Your task to perform on an android device: When is my next meeting? Image 0: 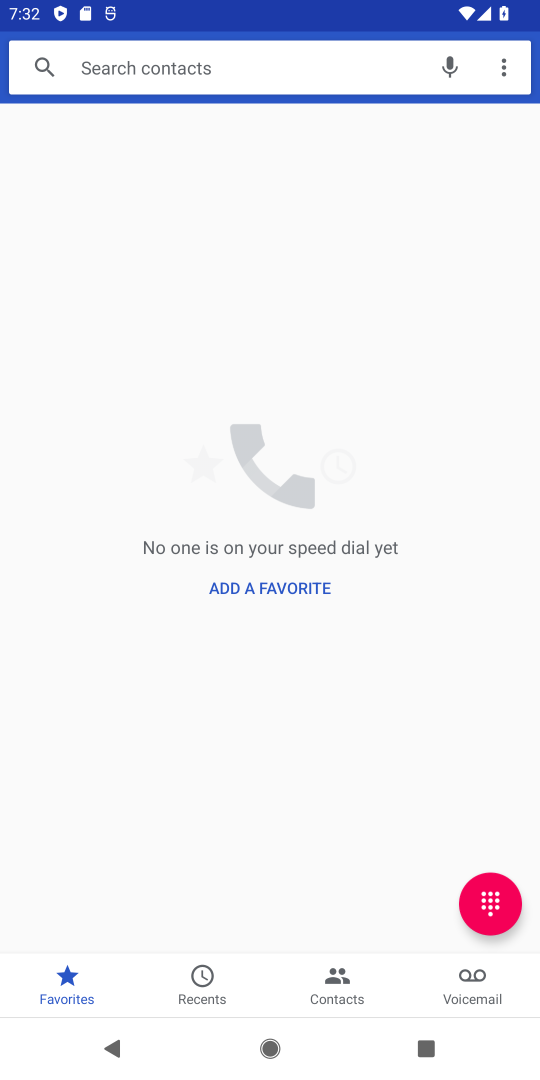
Step 0: press home button
Your task to perform on an android device: When is my next meeting? Image 1: 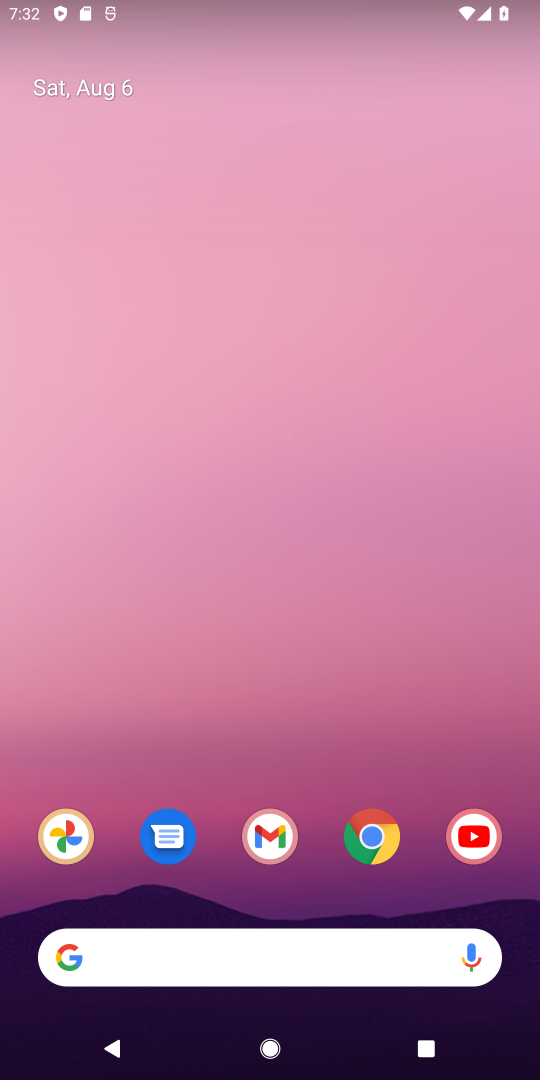
Step 1: drag from (256, 918) to (256, 367)
Your task to perform on an android device: When is my next meeting? Image 2: 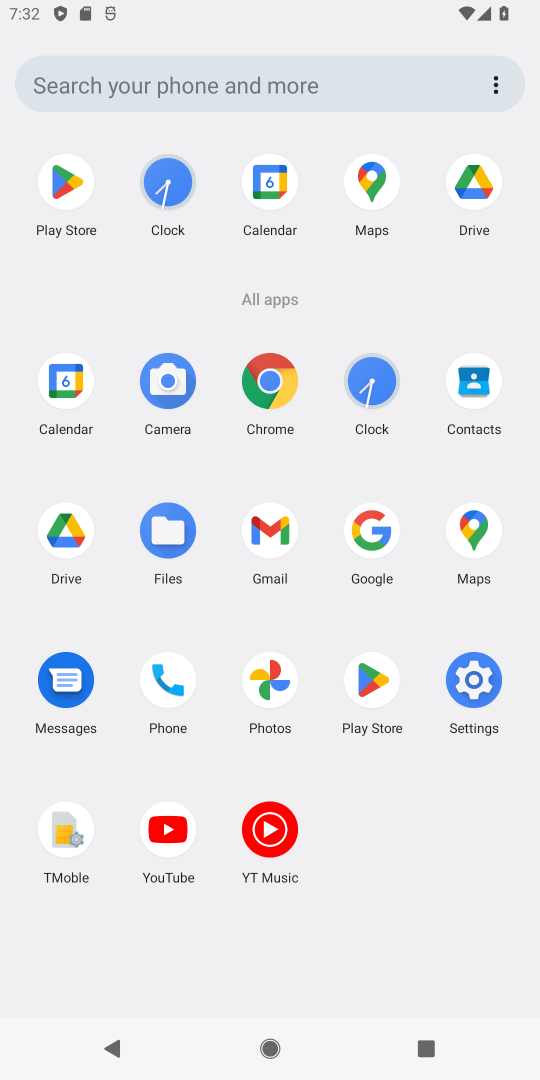
Step 2: click (69, 387)
Your task to perform on an android device: When is my next meeting? Image 3: 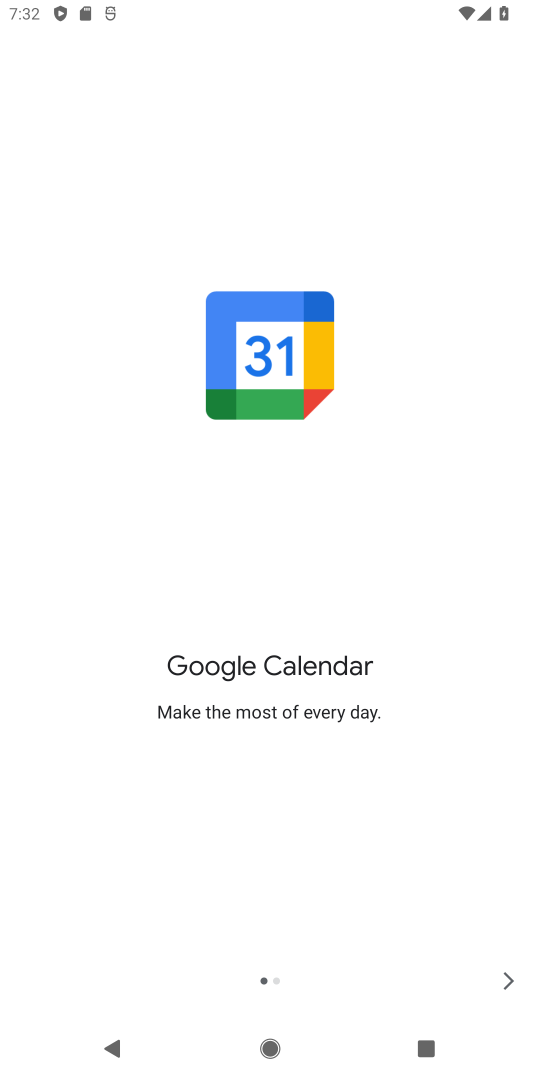
Step 3: click (498, 977)
Your task to perform on an android device: When is my next meeting? Image 4: 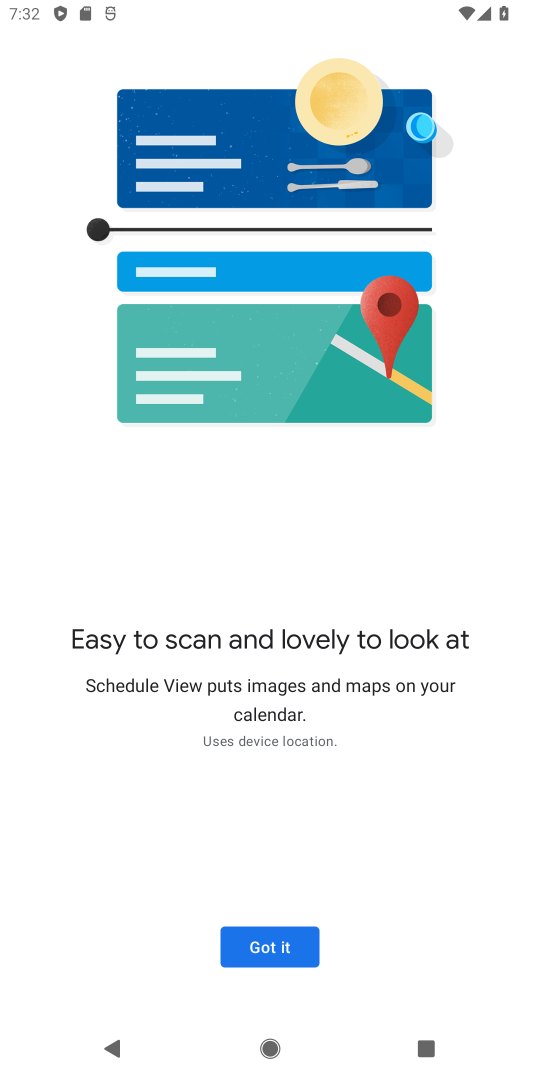
Step 4: click (280, 955)
Your task to perform on an android device: When is my next meeting? Image 5: 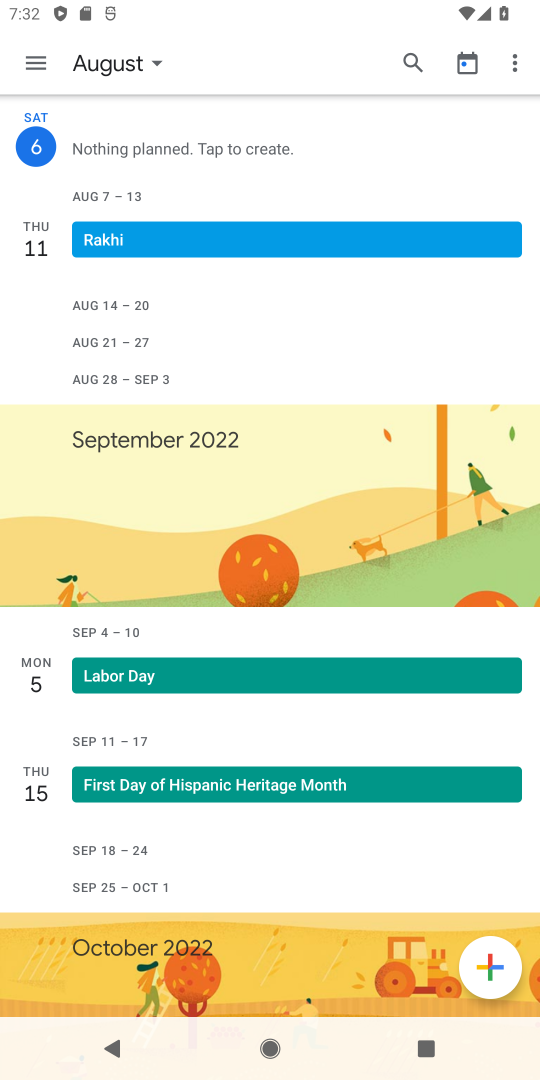
Step 5: click (128, 66)
Your task to perform on an android device: When is my next meeting? Image 6: 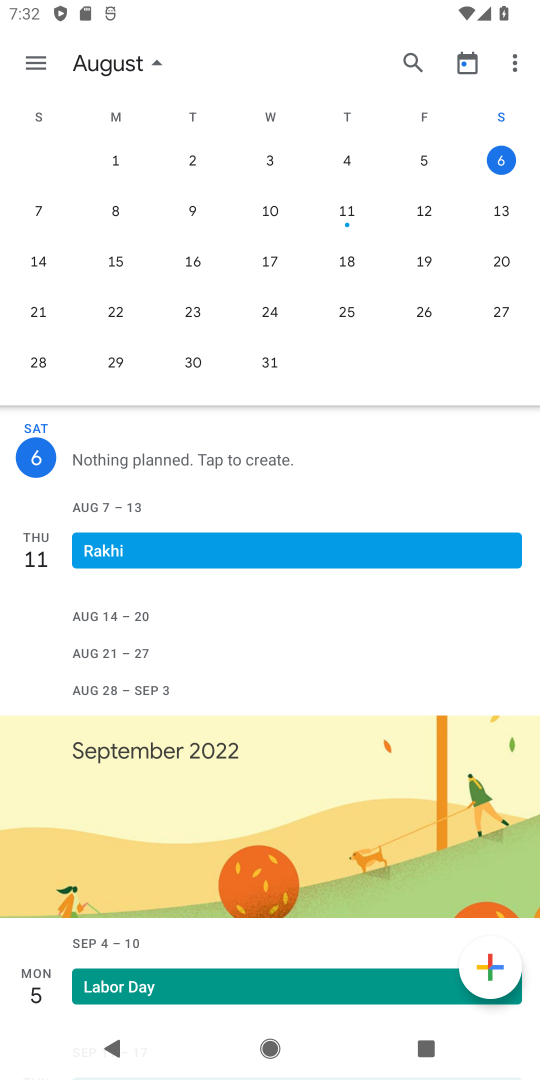
Step 6: task complete